Your task to perform on an android device: Go to ESPN.com Image 0: 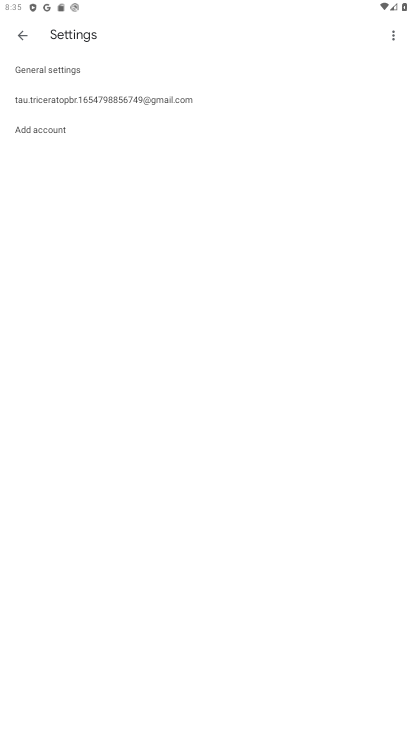
Step 0: press home button
Your task to perform on an android device: Go to ESPN.com Image 1: 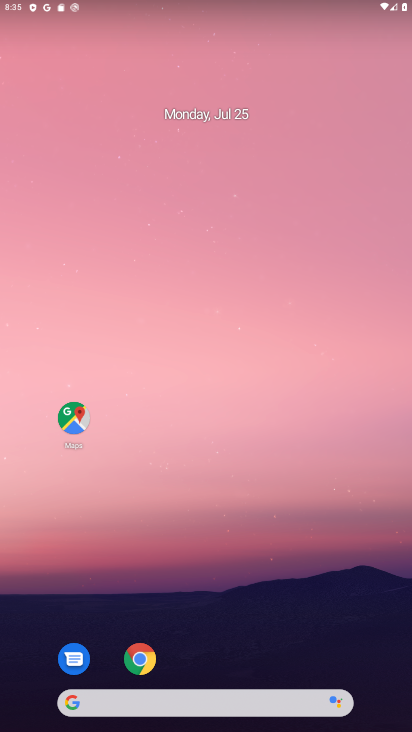
Step 1: drag from (240, 669) to (200, 197)
Your task to perform on an android device: Go to ESPN.com Image 2: 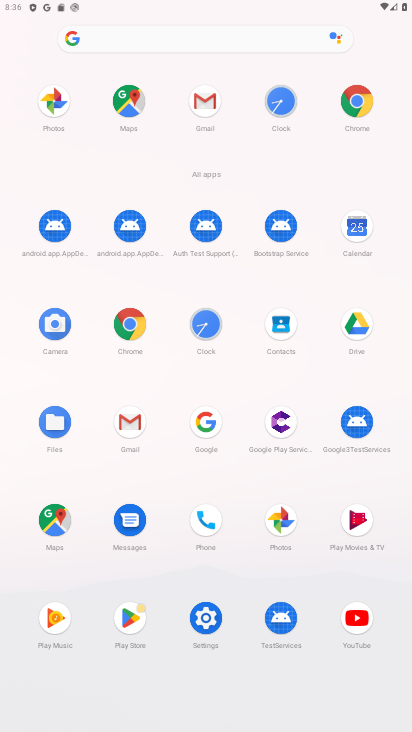
Step 2: click (361, 110)
Your task to perform on an android device: Go to ESPN.com Image 3: 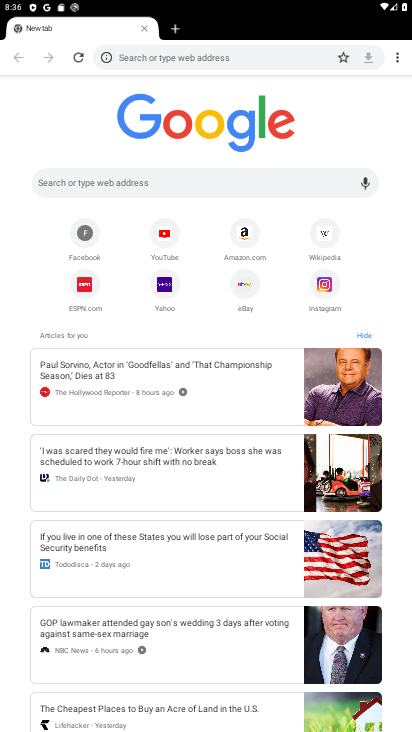
Step 3: click (87, 295)
Your task to perform on an android device: Go to ESPN.com Image 4: 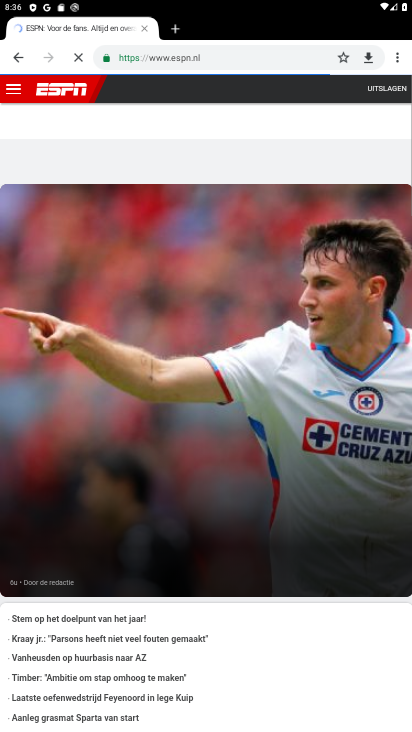
Step 4: task complete